Your task to perform on an android device: Show me productivity apps on the Play Store Image 0: 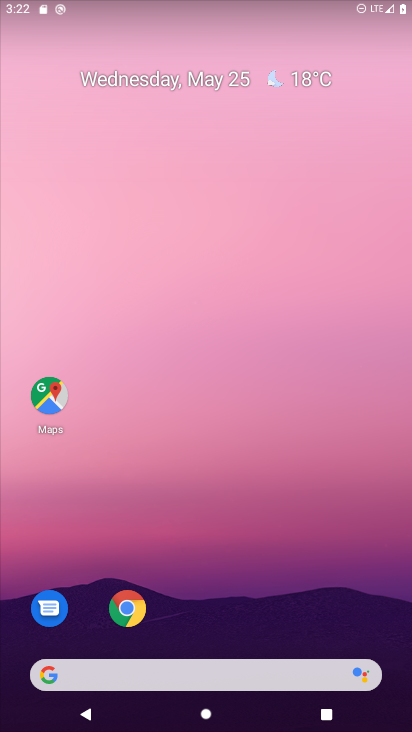
Step 0: drag from (364, 634) to (283, 202)
Your task to perform on an android device: Show me productivity apps on the Play Store Image 1: 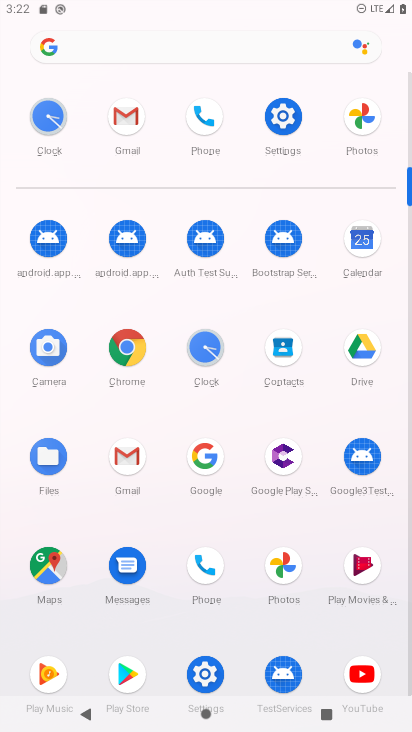
Step 1: click (121, 670)
Your task to perform on an android device: Show me productivity apps on the Play Store Image 2: 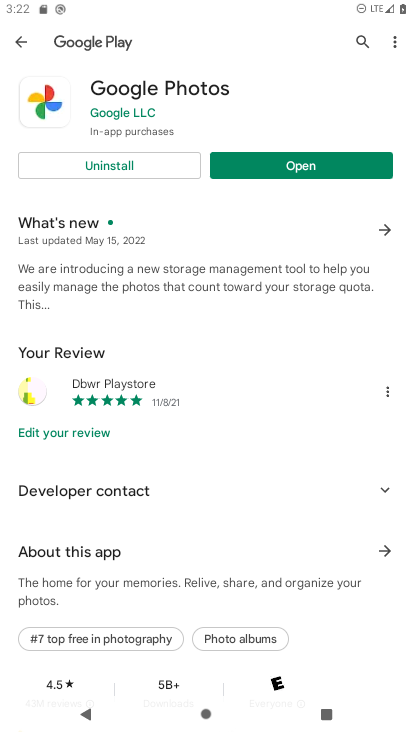
Step 2: press back button
Your task to perform on an android device: Show me productivity apps on the Play Store Image 3: 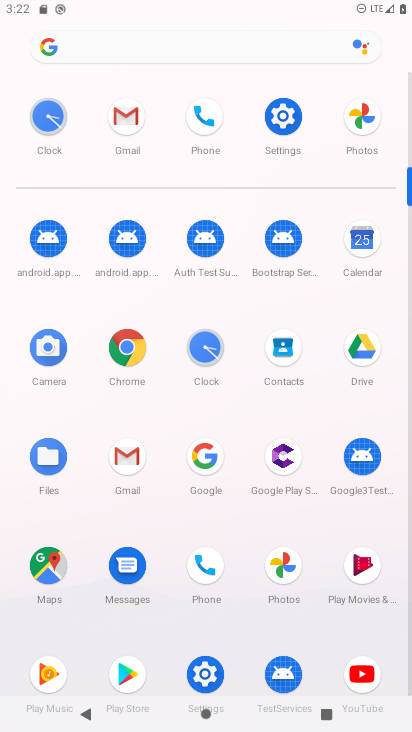
Step 3: click (123, 668)
Your task to perform on an android device: Show me productivity apps on the Play Store Image 4: 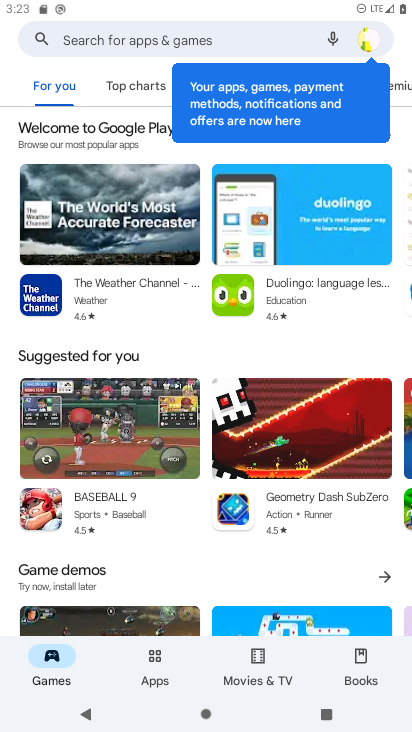
Step 4: drag from (219, 571) to (183, 192)
Your task to perform on an android device: Show me productivity apps on the Play Store Image 5: 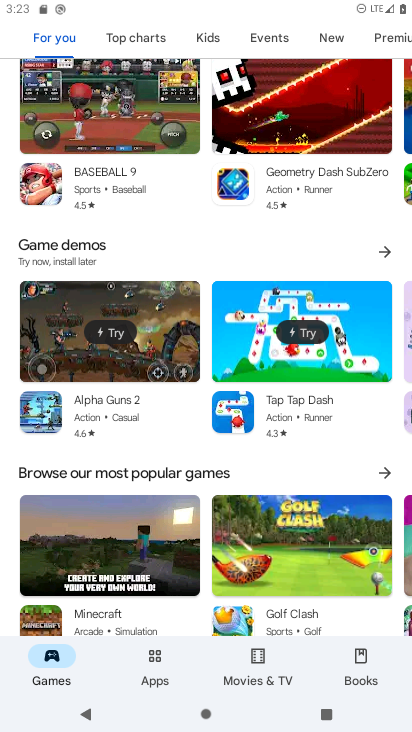
Step 5: click (159, 658)
Your task to perform on an android device: Show me productivity apps on the Play Store Image 6: 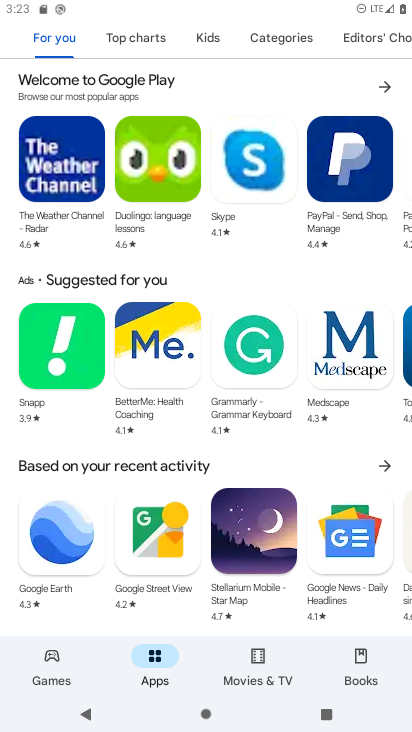
Step 6: drag from (214, 536) to (228, 362)
Your task to perform on an android device: Show me productivity apps on the Play Store Image 7: 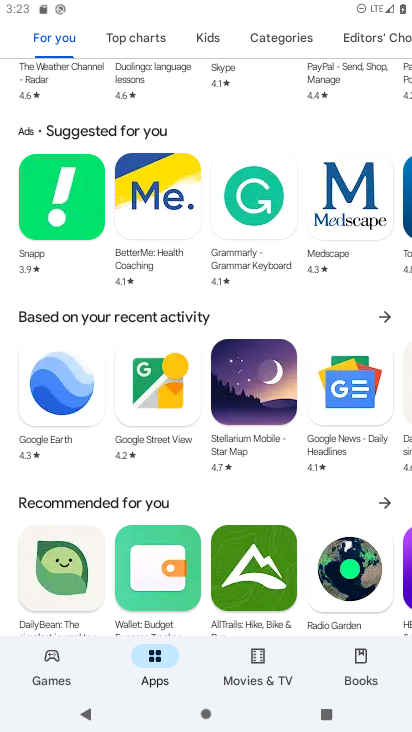
Step 7: click (276, 40)
Your task to perform on an android device: Show me productivity apps on the Play Store Image 8: 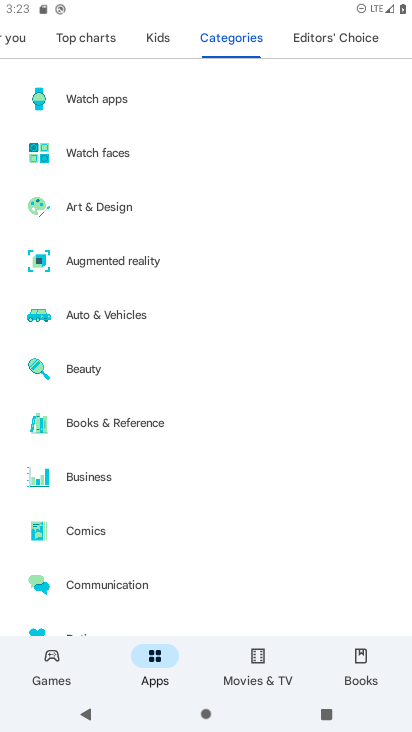
Step 8: drag from (175, 534) to (209, 191)
Your task to perform on an android device: Show me productivity apps on the Play Store Image 9: 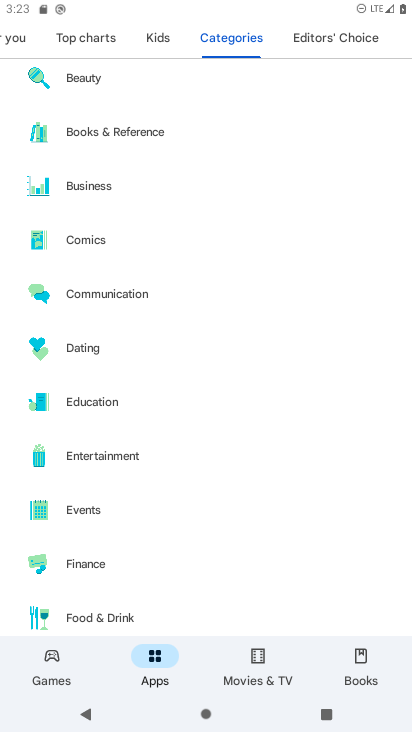
Step 9: drag from (218, 585) to (142, 203)
Your task to perform on an android device: Show me productivity apps on the Play Store Image 10: 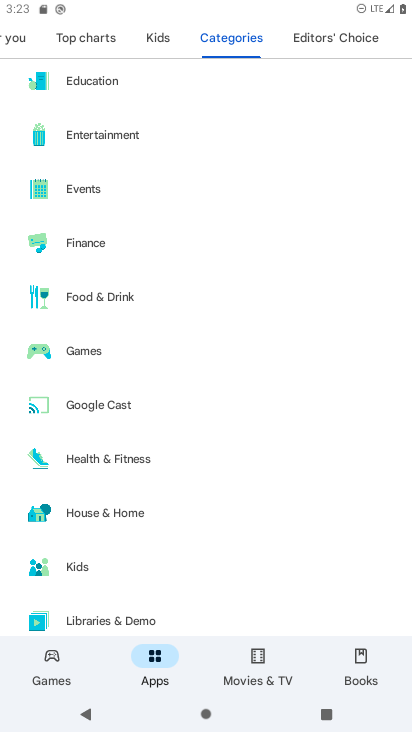
Step 10: drag from (160, 488) to (186, 181)
Your task to perform on an android device: Show me productivity apps on the Play Store Image 11: 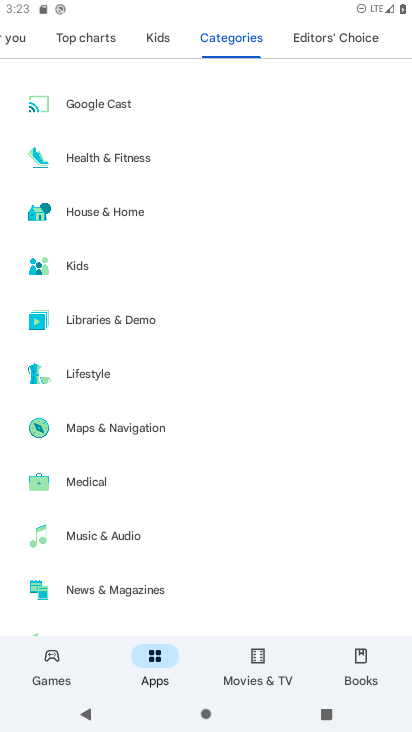
Step 11: drag from (204, 585) to (239, 307)
Your task to perform on an android device: Show me productivity apps on the Play Store Image 12: 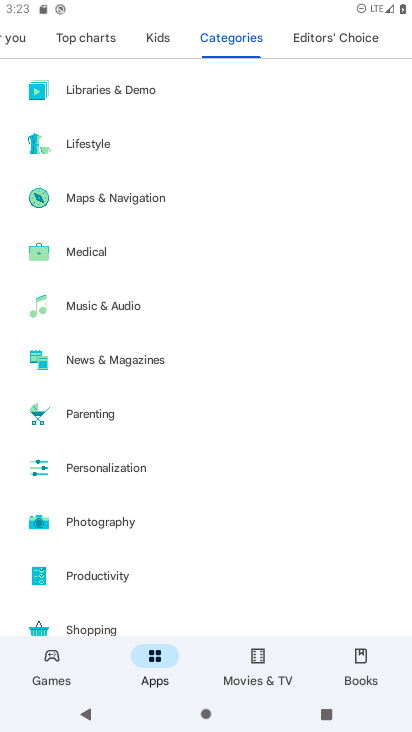
Step 12: click (91, 574)
Your task to perform on an android device: Show me productivity apps on the Play Store Image 13: 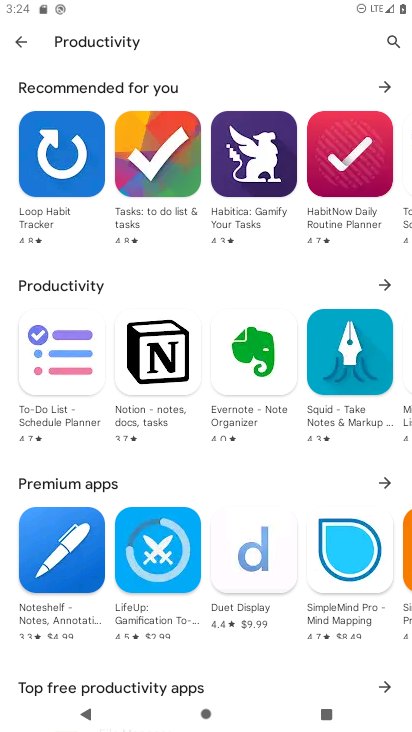
Step 13: click (385, 283)
Your task to perform on an android device: Show me productivity apps on the Play Store Image 14: 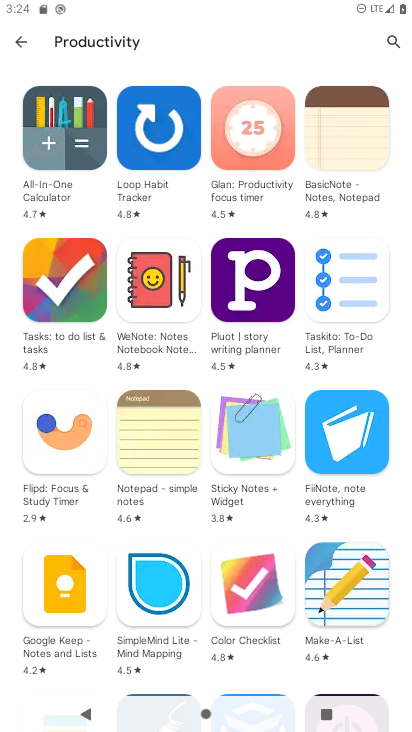
Step 14: task complete